Your task to perform on an android device: turn off sleep mode Image 0: 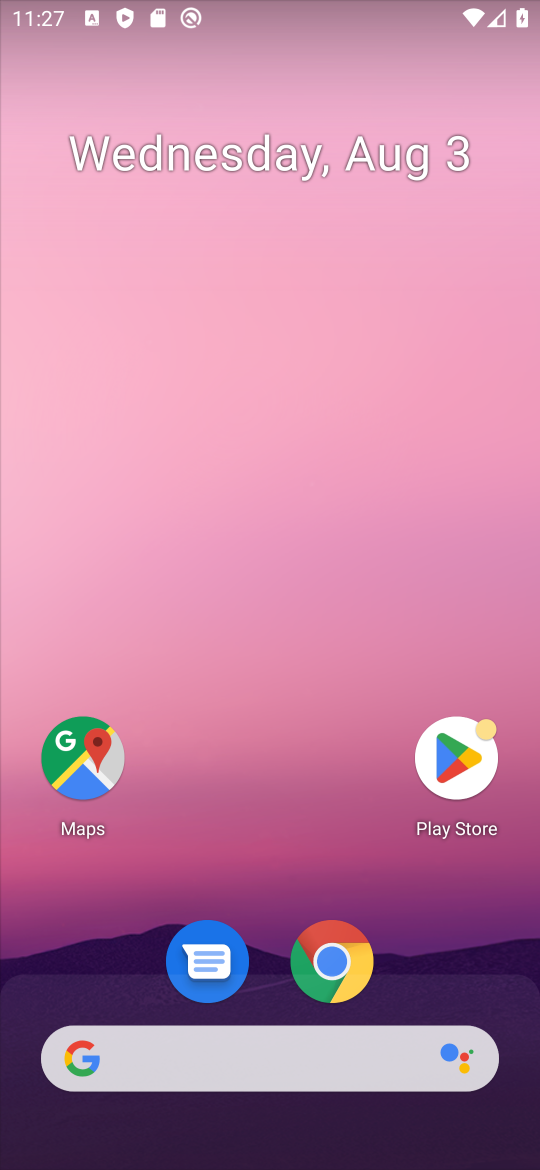
Step 0: drag from (202, 721) to (250, 35)
Your task to perform on an android device: turn off sleep mode Image 1: 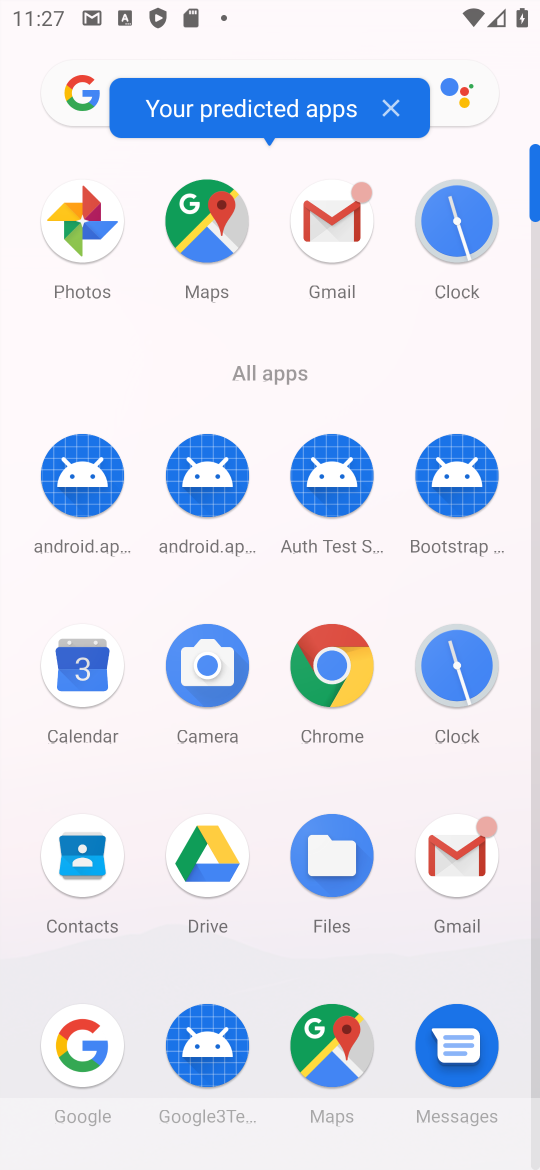
Step 1: drag from (263, 842) to (314, 59)
Your task to perform on an android device: turn off sleep mode Image 2: 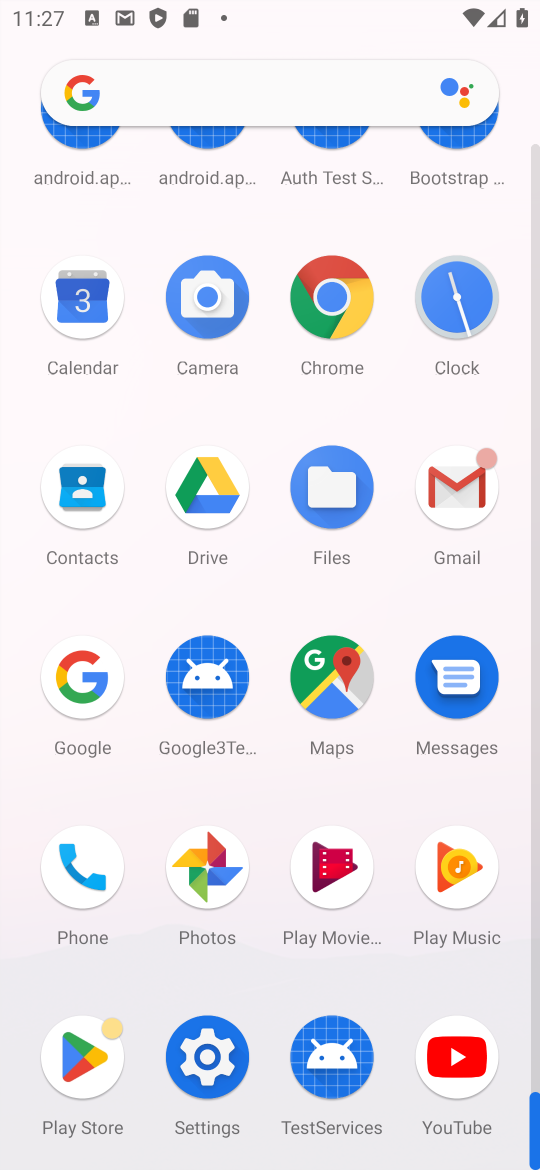
Step 2: click (211, 1042)
Your task to perform on an android device: turn off sleep mode Image 3: 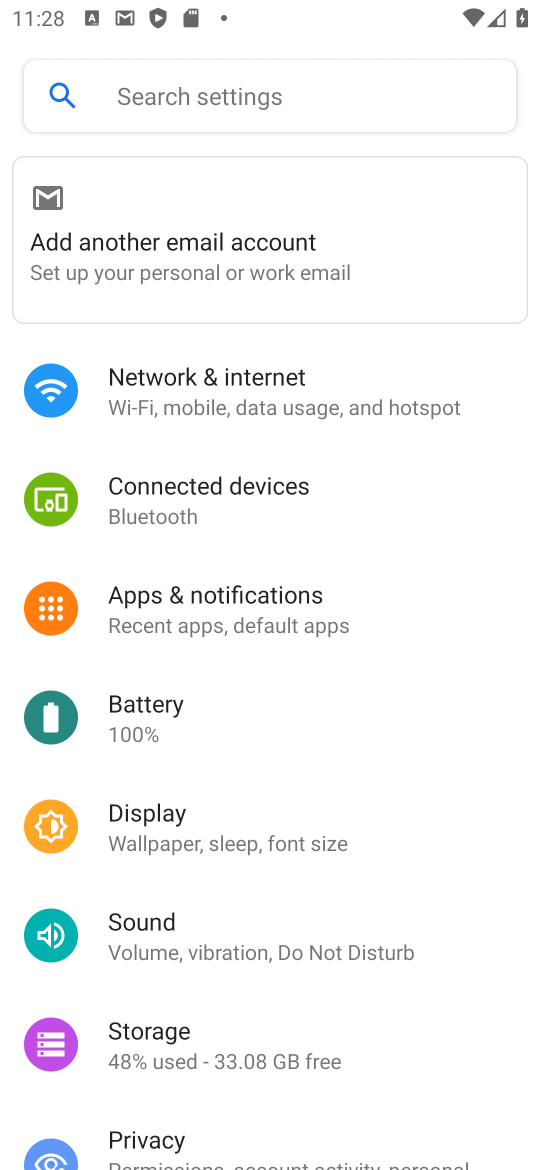
Step 3: click (209, 820)
Your task to perform on an android device: turn off sleep mode Image 4: 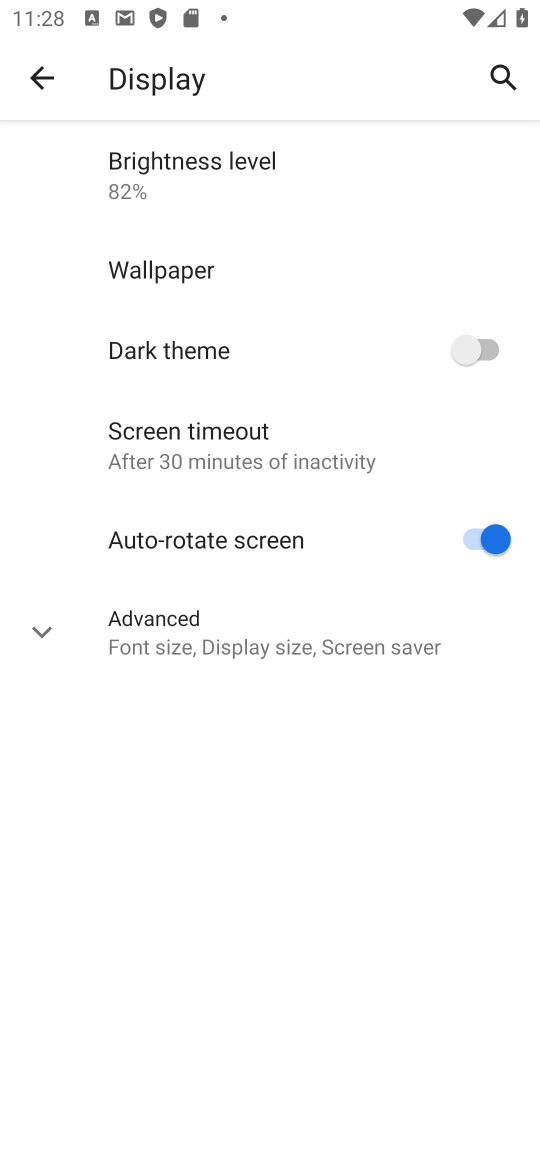
Step 4: click (47, 631)
Your task to perform on an android device: turn off sleep mode Image 5: 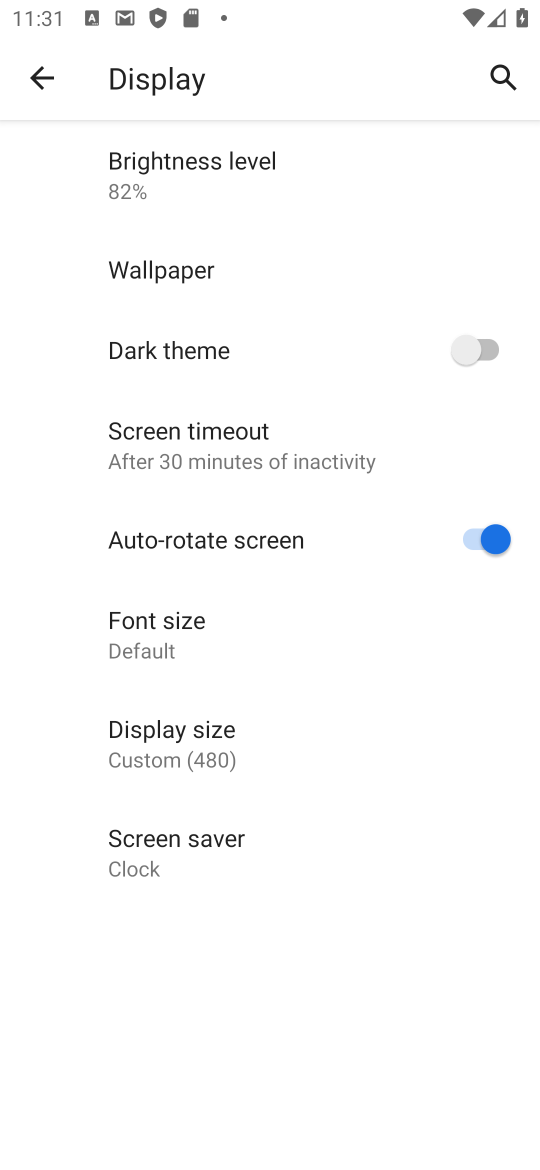
Step 5: task complete